Your task to perform on an android device: check the backup settings in the google photos Image 0: 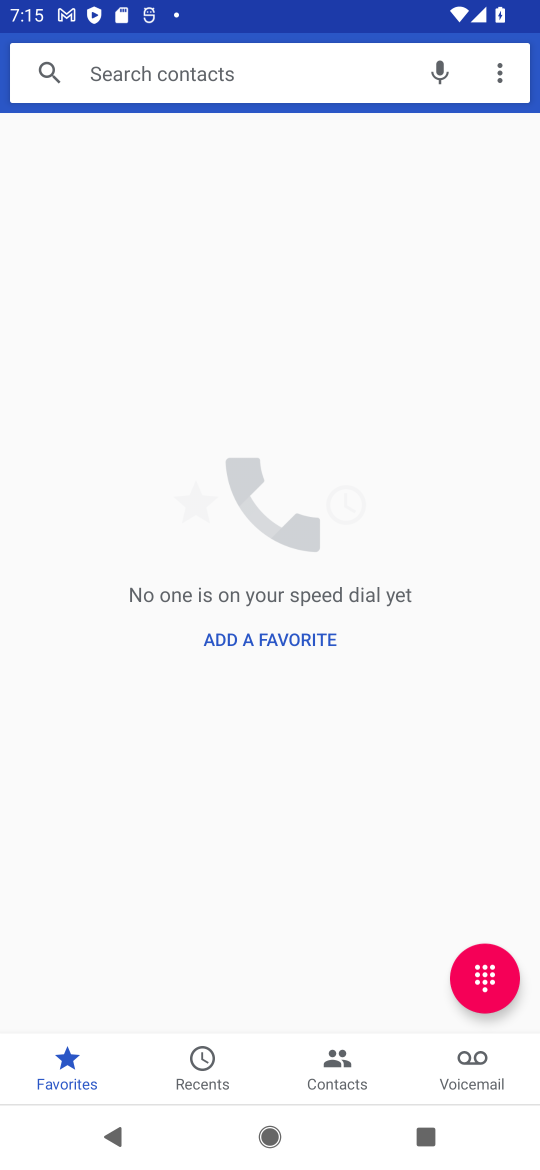
Step 0: press home button
Your task to perform on an android device: check the backup settings in the google photos Image 1: 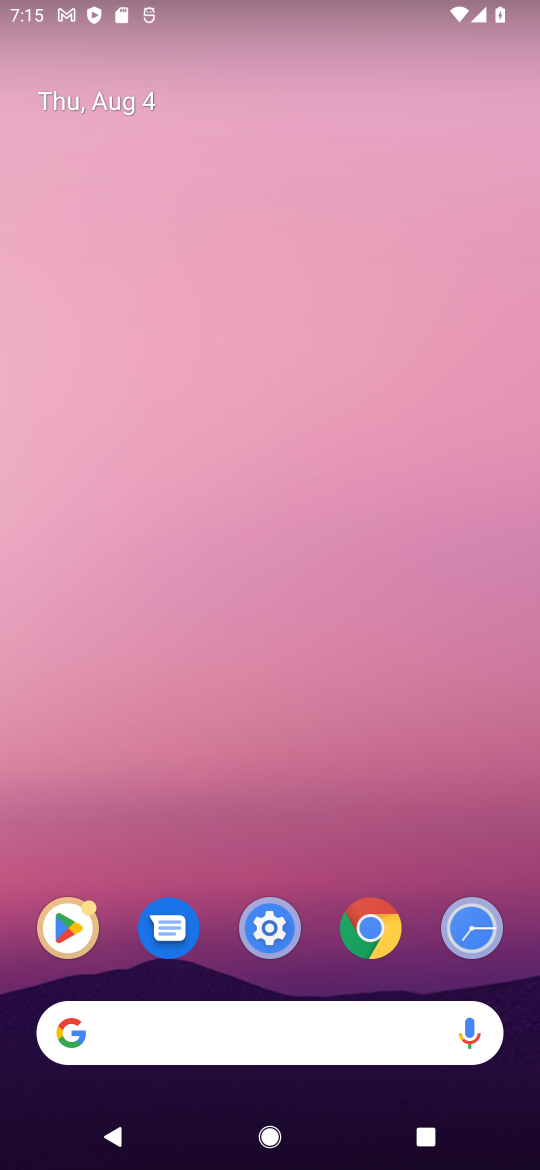
Step 1: drag from (214, 980) to (277, 47)
Your task to perform on an android device: check the backup settings in the google photos Image 2: 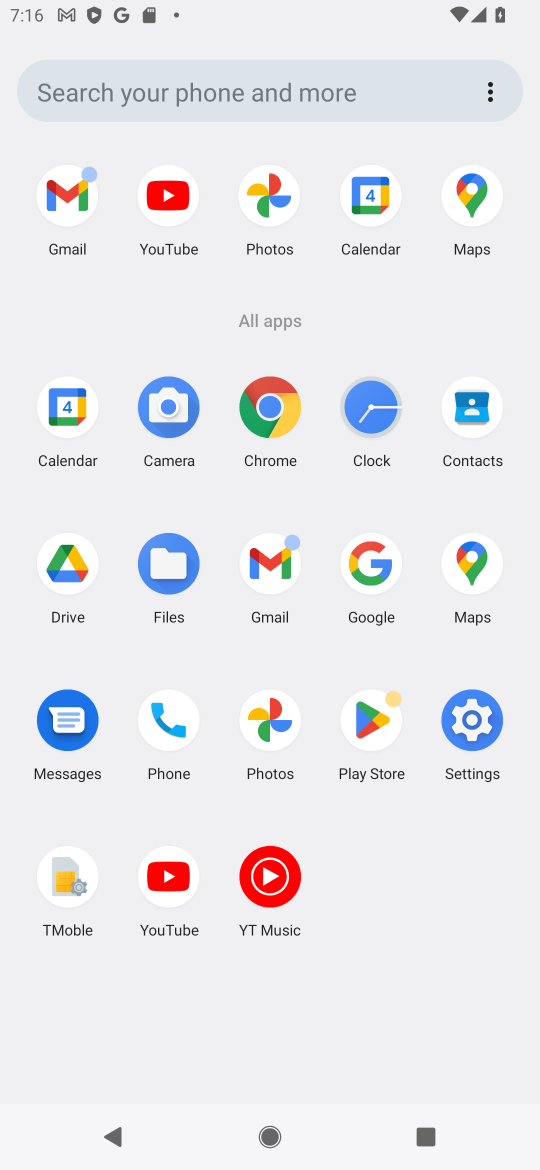
Step 2: click (268, 745)
Your task to perform on an android device: check the backup settings in the google photos Image 3: 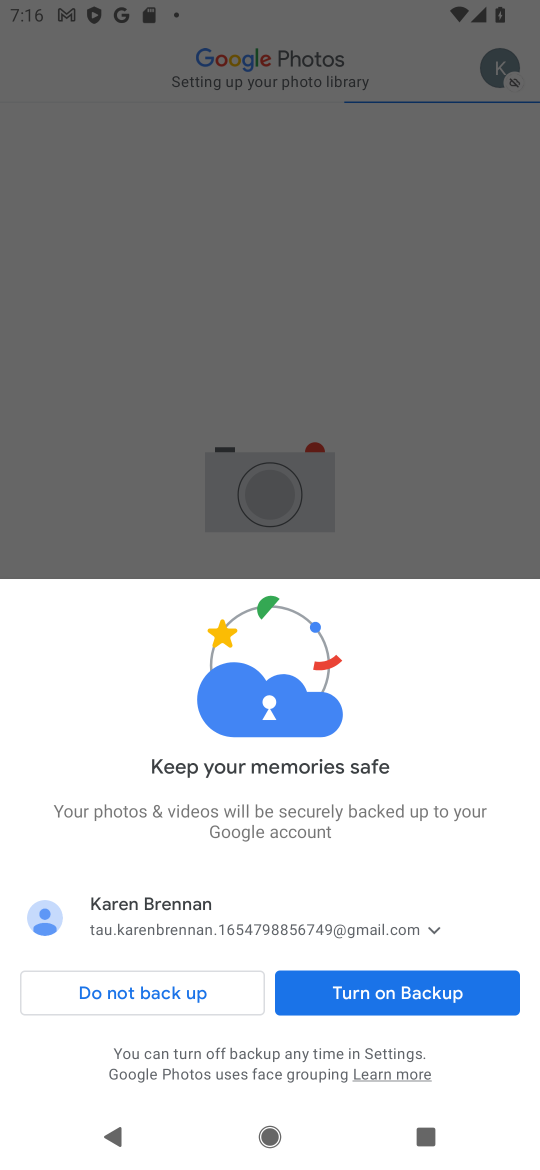
Step 3: click (228, 994)
Your task to perform on an android device: check the backup settings in the google photos Image 4: 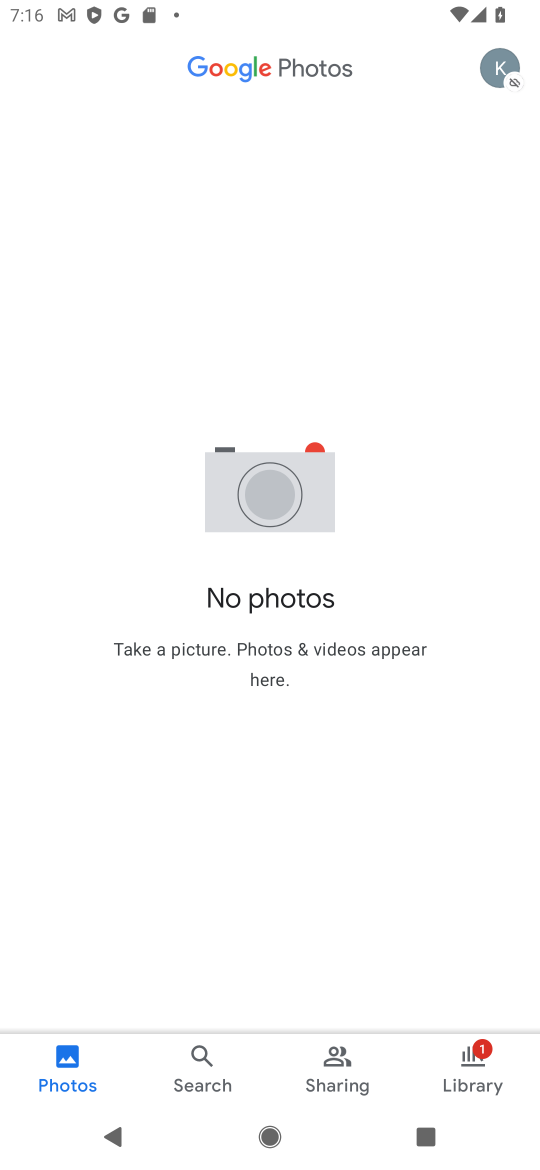
Step 4: click (492, 62)
Your task to perform on an android device: check the backup settings in the google photos Image 5: 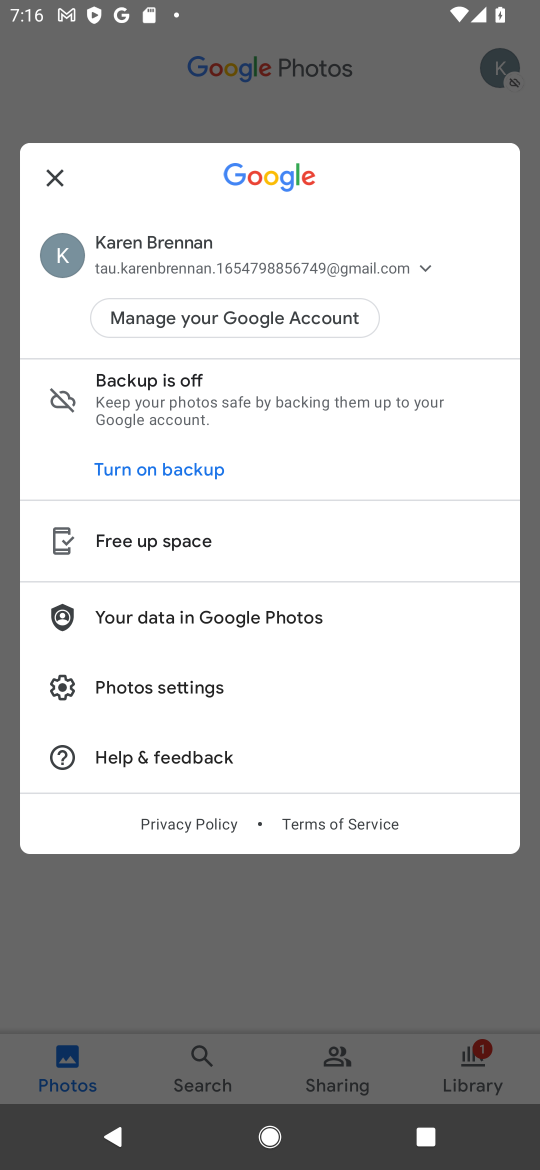
Step 5: click (191, 396)
Your task to perform on an android device: check the backup settings in the google photos Image 6: 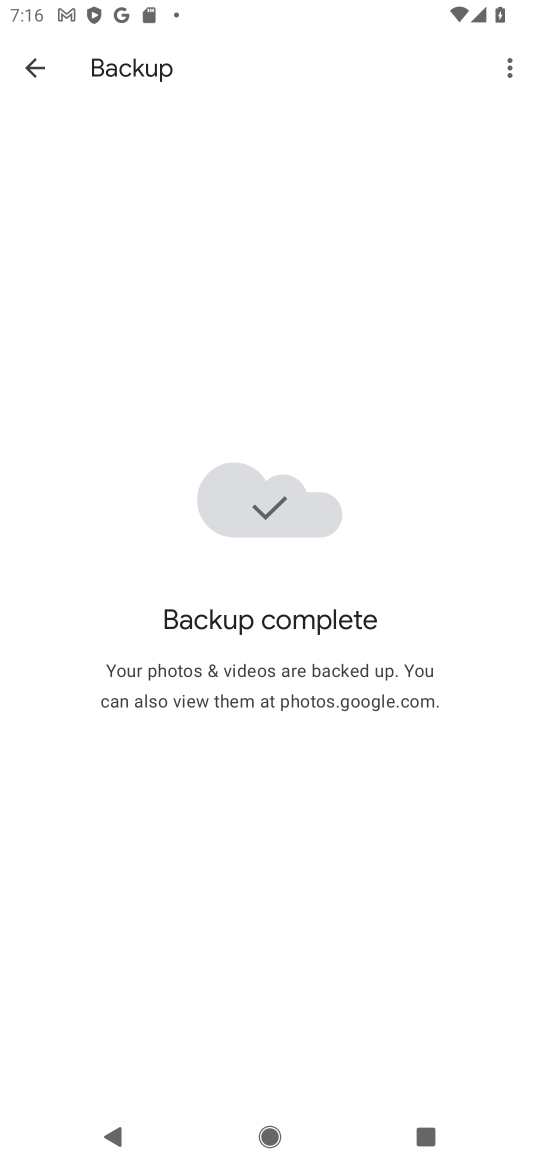
Step 6: task complete